Your task to perform on an android device: Open Google Maps Image 0: 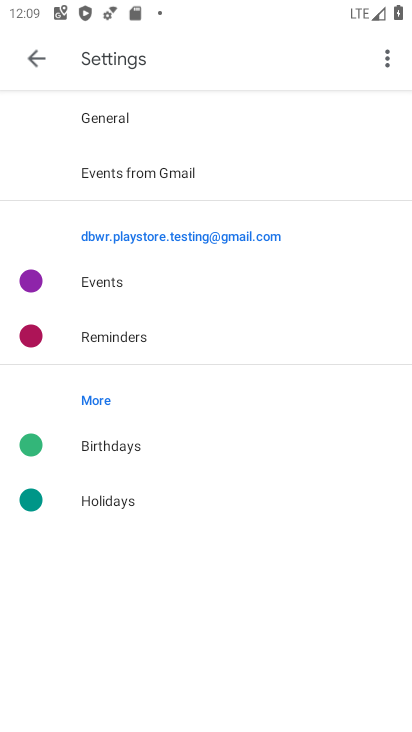
Step 0: press home button
Your task to perform on an android device: Open Google Maps Image 1: 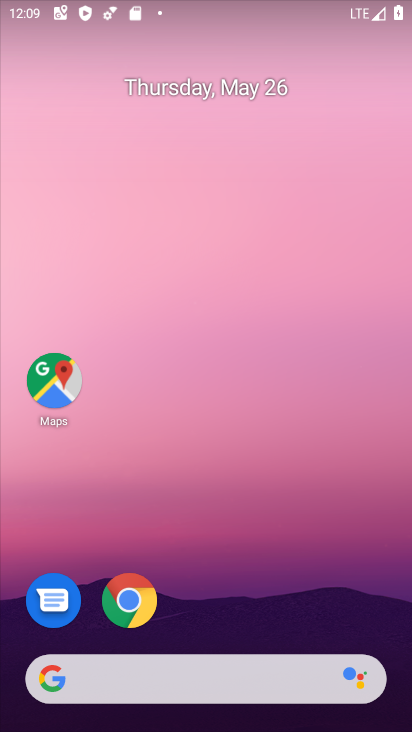
Step 1: drag from (230, 556) to (262, 134)
Your task to perform on an android device: Open Google Maps Image 2: 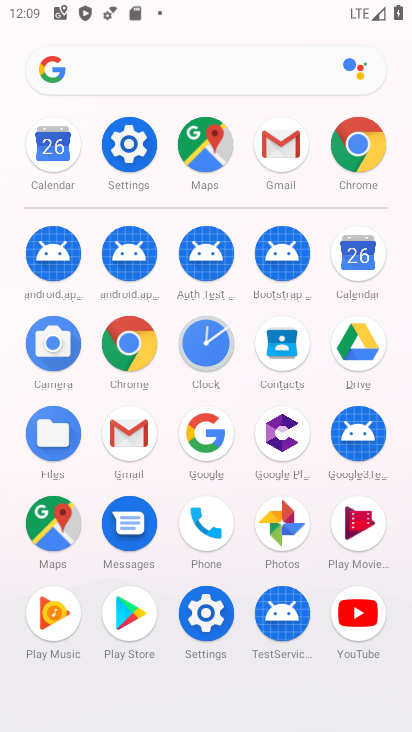
Step 2: click (205, 131)
Your task to perform on an android device: Open Google Maps Image 3: 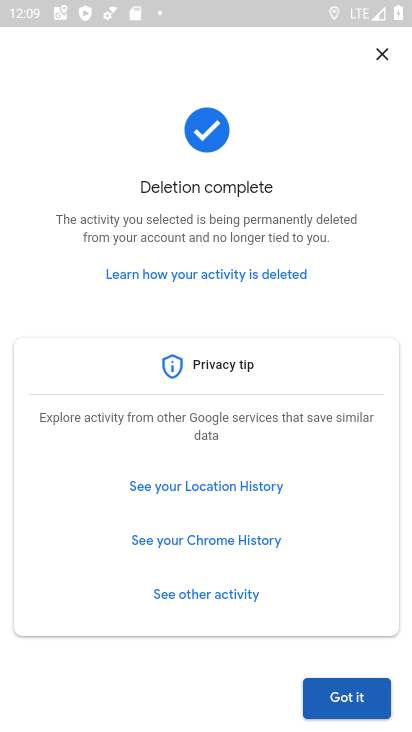
Step 3: task complete